Your task to perform on an android device: change keyboard looks Image 0: 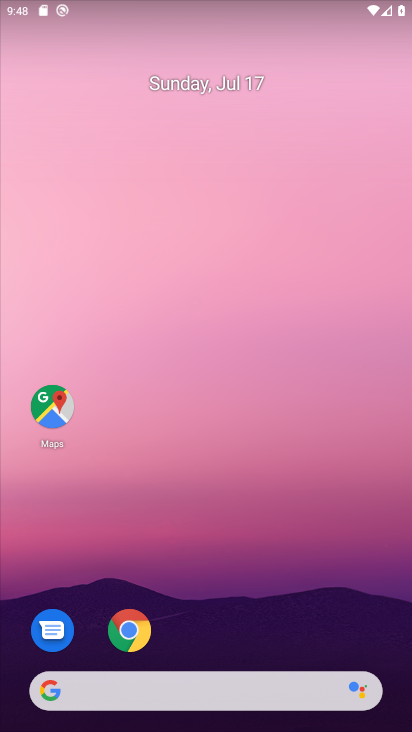
Step 0: drag from (235, 623) to (225, 92)
Your task to perform on an android device: change keyboard looks Image 1: 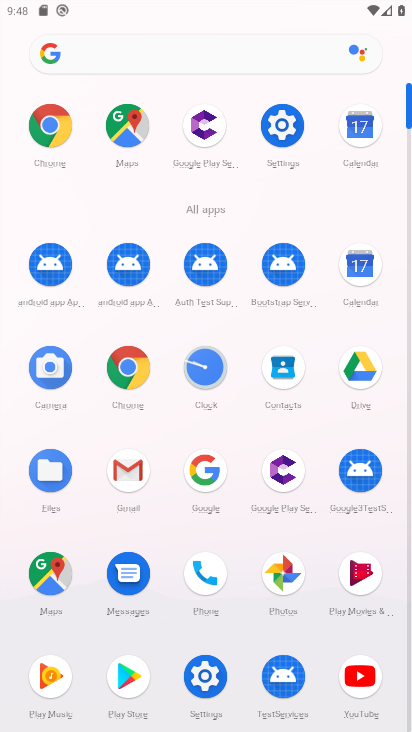
Step 1: click (200, 677)
Your task to perform on an android device: change keyboard looks Image 2: 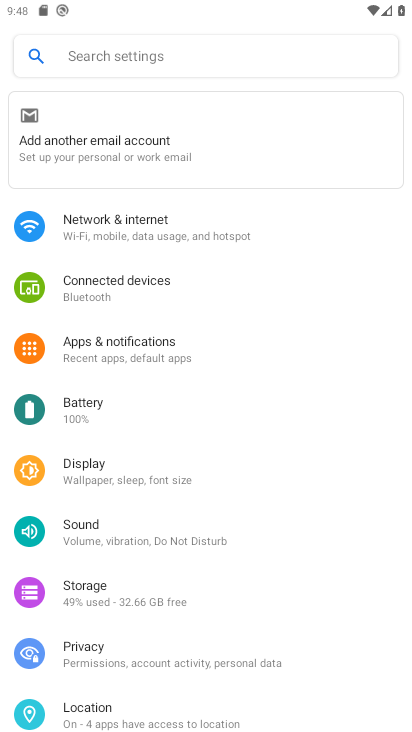
Step 2: drag from (130, 669) to (158, 196)
Your task to perform on an android device: change keyboard looks Image 3: 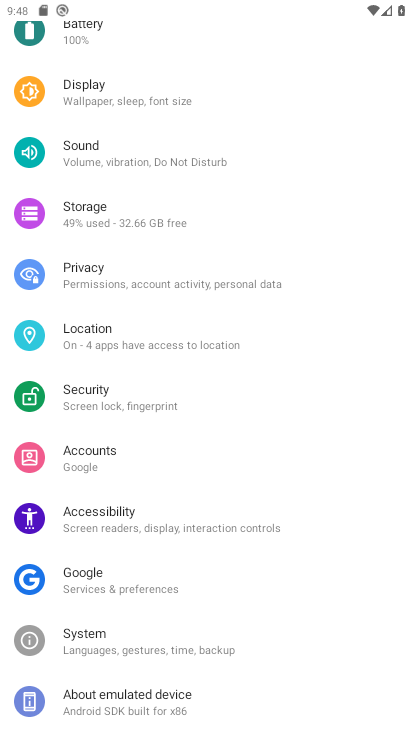
Step 3: drag from (129, 666) to (136, 458)
Your task to perform on an android device: change keyboard looks Image 4: 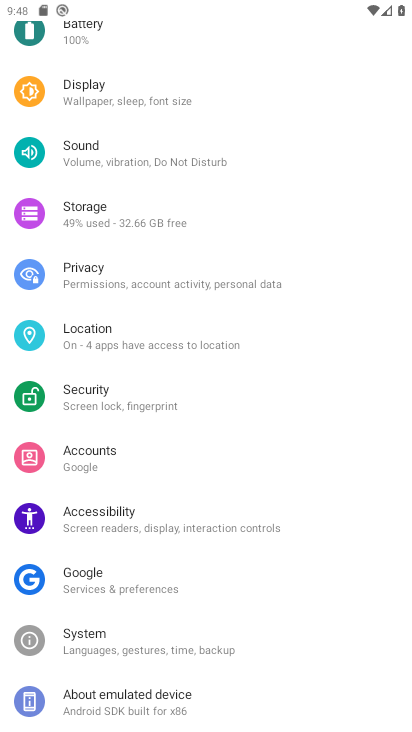
Step 4: click (100, 644)
Your task to perform on an android device: change keyboard looks Image 5: 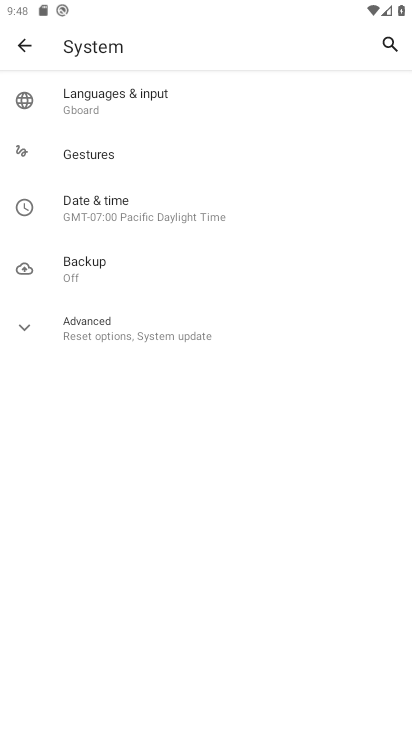
Step 5: click (106, 108)
Your task to perform on an android device: change keyboard looks Image 6: 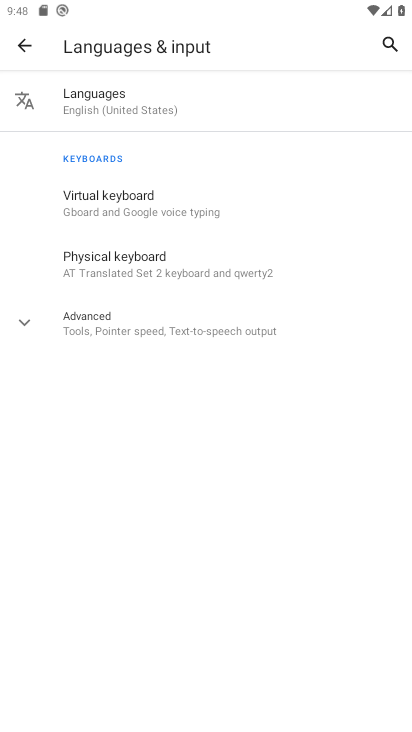
Step 6: click (126, 204)
Your task to perform on an android device: change keyboard looks Image 7: 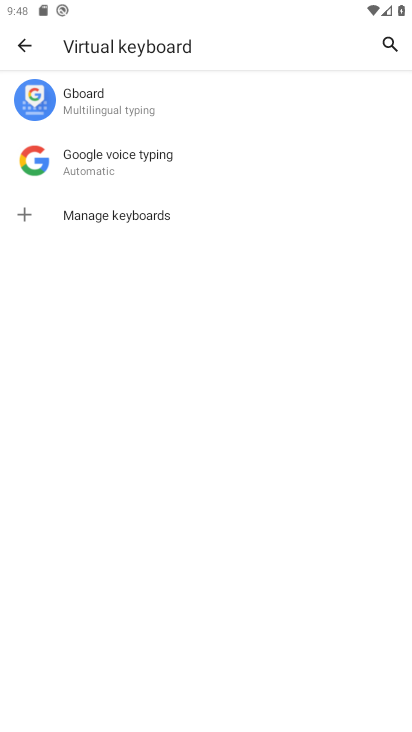
Step 7: click (109, 104)
Your task to perform on an android device: change keyboard looks Image 8: 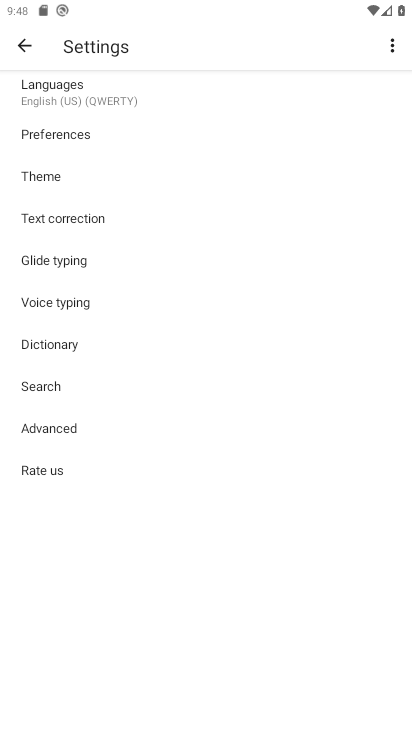
Step 8: click (58, 173)
Your task to perform on an android device: change keyboard looks Image 9: 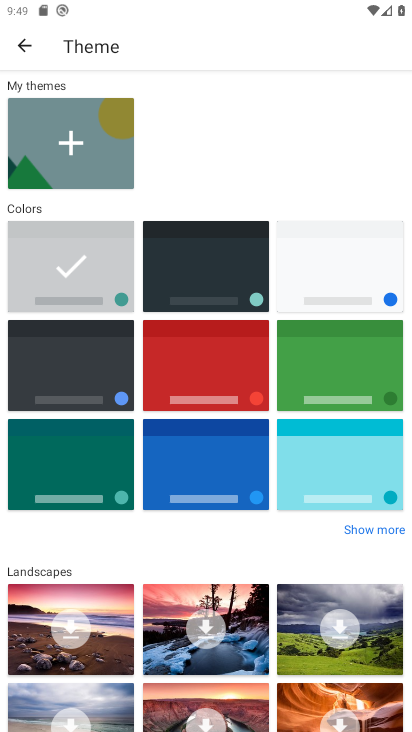
Step 9: click (177, 276)
Your task to perform on an android device: change keyboard looks Image 10: 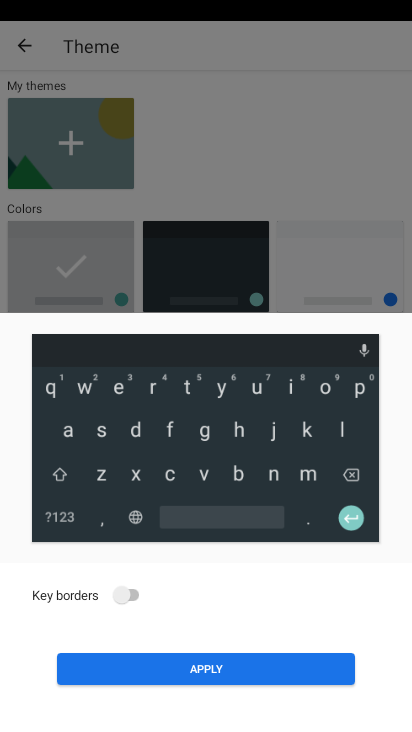
Step 10: click (260, 677)
Your task to perform on an android device: change keyboard looks Image 11: 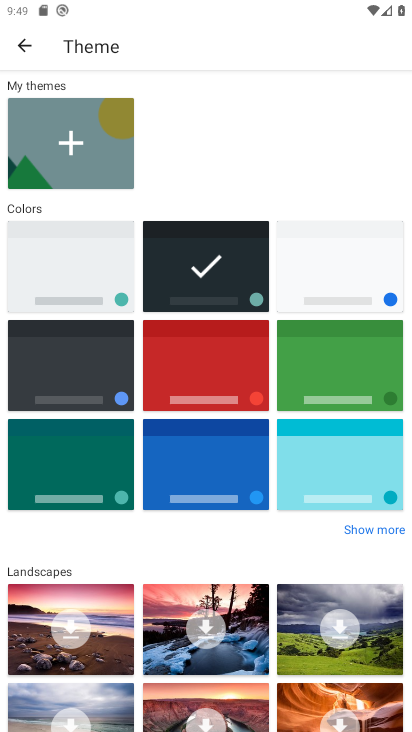
Step 11: task complete